Your task to perform on an android device: turn off priority inbox in the gmail app Image 0: 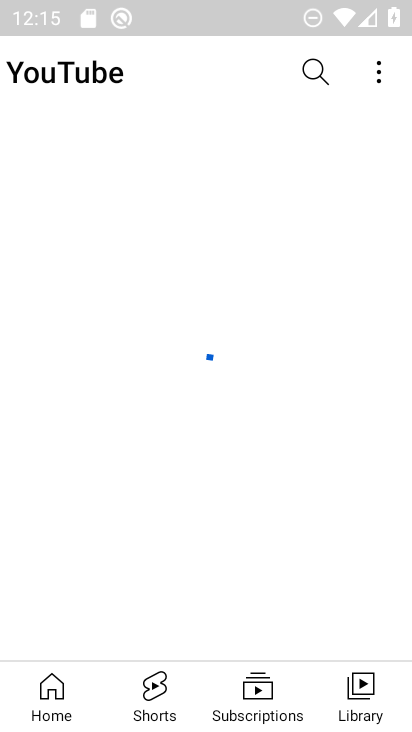
Step 0: press home button
Your task to perform on an android device: turn off priority inbox in the gmail app Image 1: 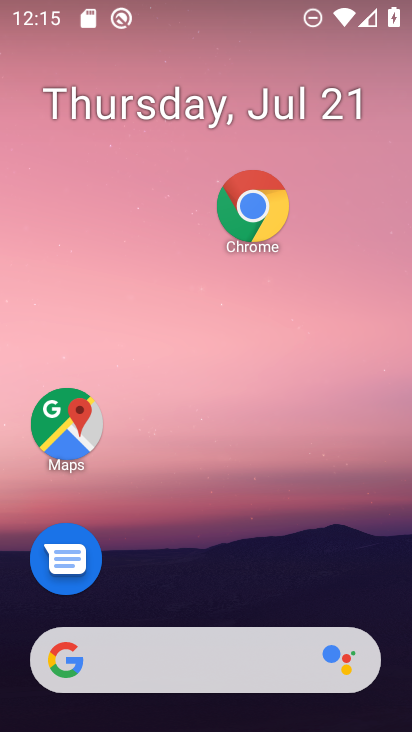
Step 1: drag from (154, 685) to (145, 286)
Your task to perform on an android device: turn off priority inbox in the gmail app Image 2: 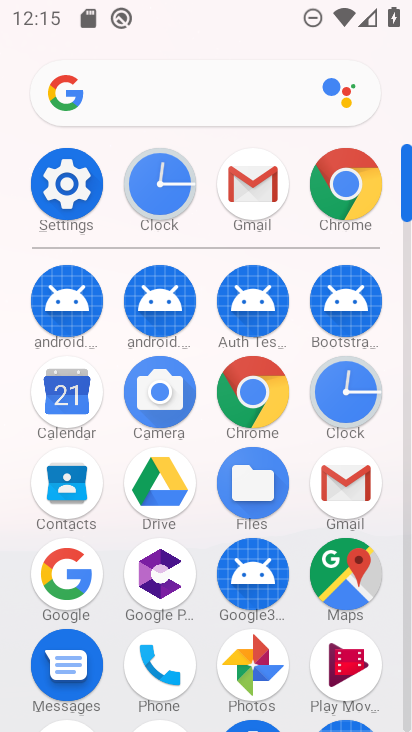
Step 2: click (357, 513)
Your task to perform on an android device: turn off priority inbox in the gmail app Image 3: 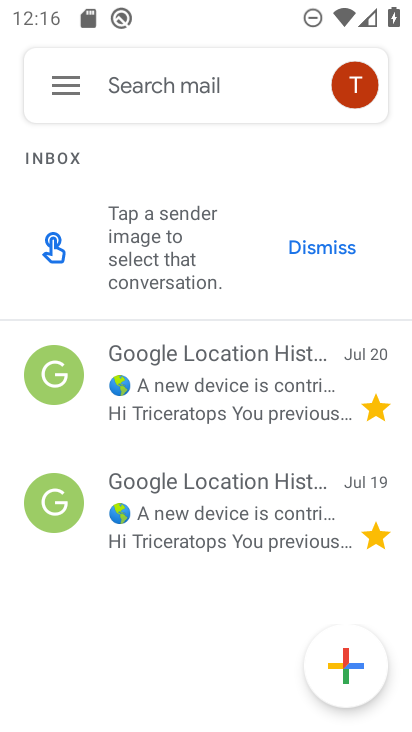
Step 3: click (51, 102)
Your task to perform on an android device: turn off priority inbox in the gmail app Image 4: 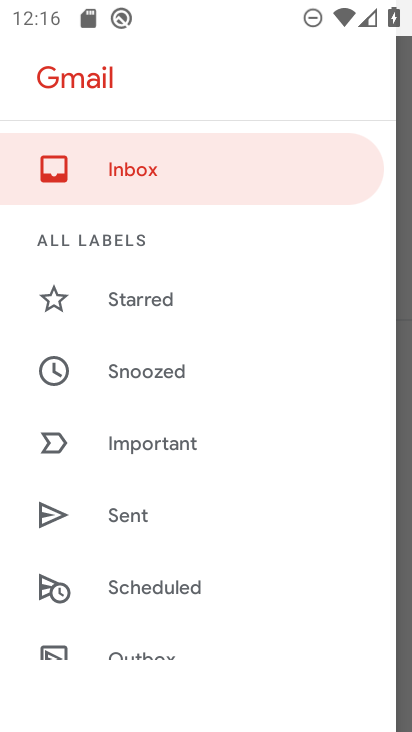
Step 4: drag from (115, 564) to (165, 47)
Your task to perform on an android device: turn off priority inbox in the gmail app Image 5: 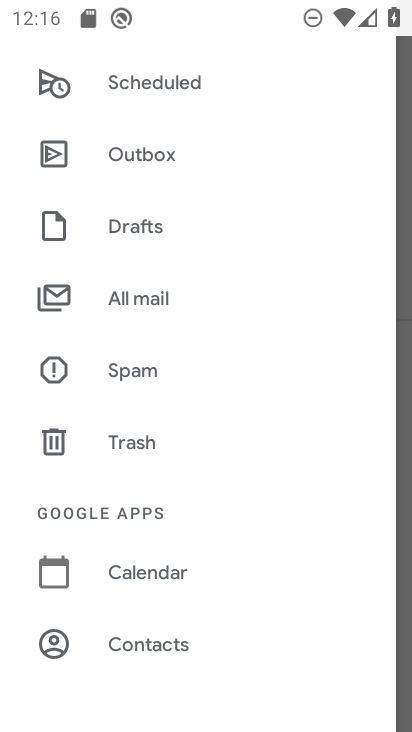
Step 5: drag from (153, 554) to (228, 157)
Your task to perform on an android device: turn off priority inbox in the gmail app Image 6: 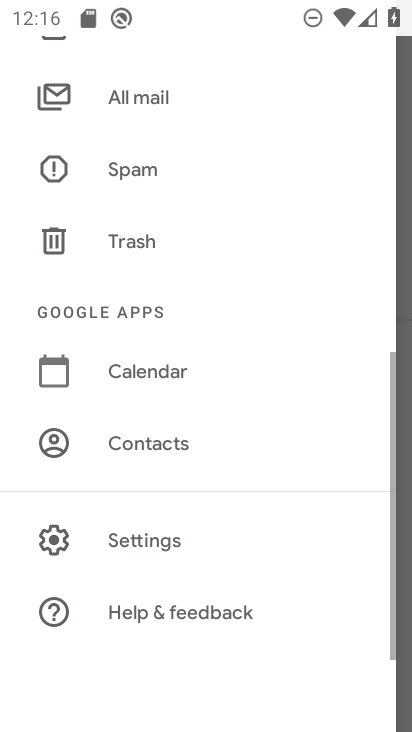
Step 6: click (171, 547)
Your task to perform on an android device: turn off priority inbox in the gmail app Image 7: 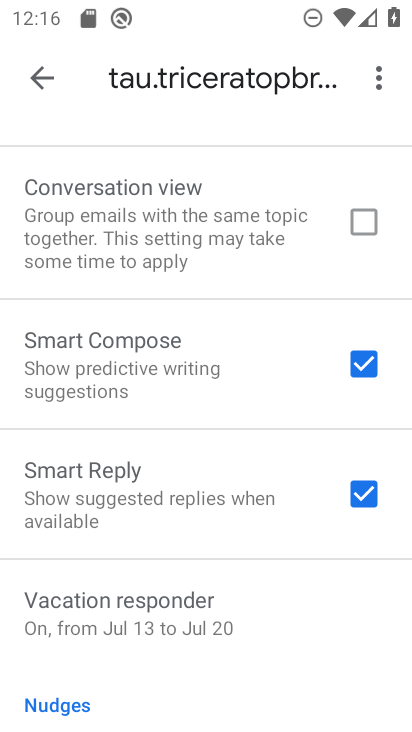
Step 7: drag from (156, 250) to (324, 727)
Your task to perform on an android device: turn off priority inbox in the gmail app Image 8: 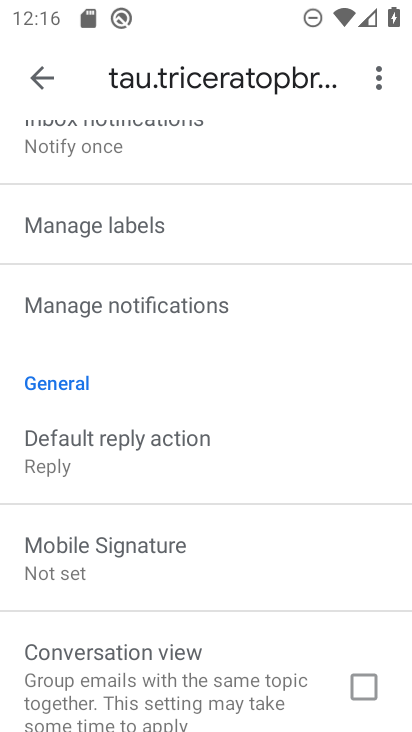
Step 8: drag from (182, 379) to (258, 725)
Your task to perform on an android device: turn off priority inbox in the gmail app Image 9: 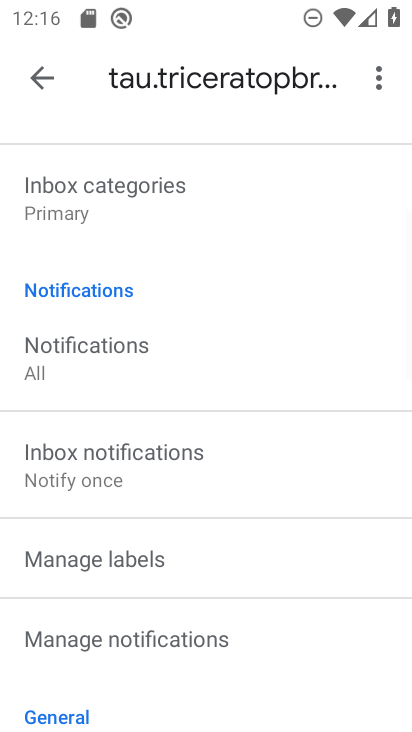
Step 9: drag from (195, 319) to (199, 728)
Your task to perform on an android device: turn off priority inbox in the gmail app Image 10: 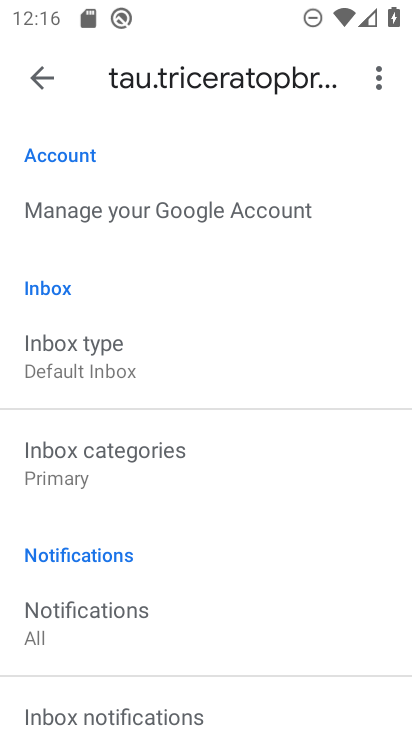
Step 10: click (121, 378)
Your task to perform on an android device: turn off priority inbox in the gmail app Image 11: 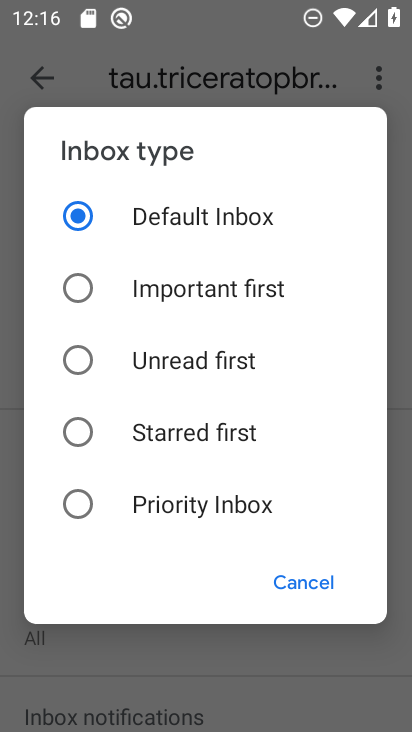
Step 11: task complete